Your task to perform on an android device: Go to location settings Image 0: 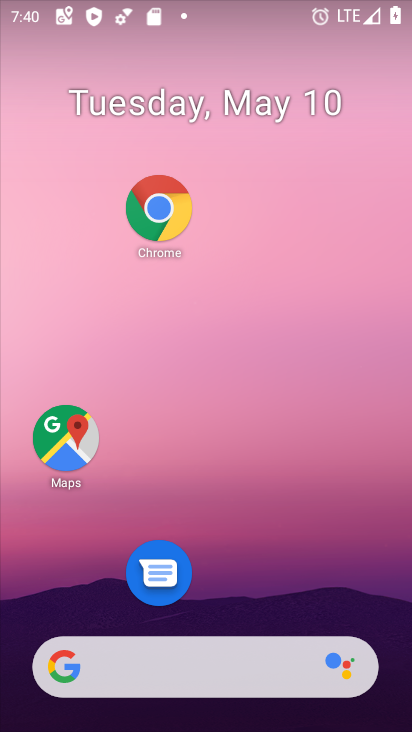
Step 0: drag from (298, 680) to (365, 149)
Your task to perform on an android device: Go to location settings Image 1: 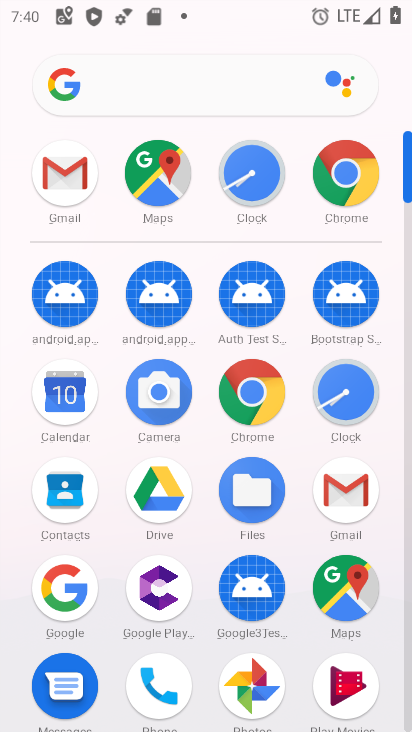
Step 1: drag from (192, 545) to (222, 470)
Your task to perform on an android device: Go to location settings Image 2: 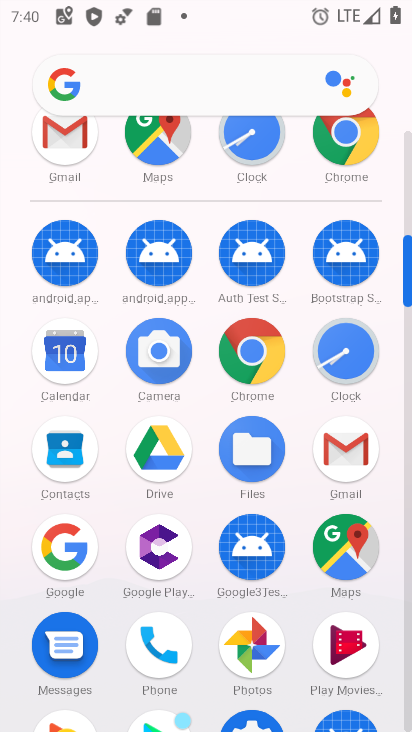
Step 2: drag from (216, 500) to (254, 409)
Your task to perform on an android device: Go to location settings Image 3: 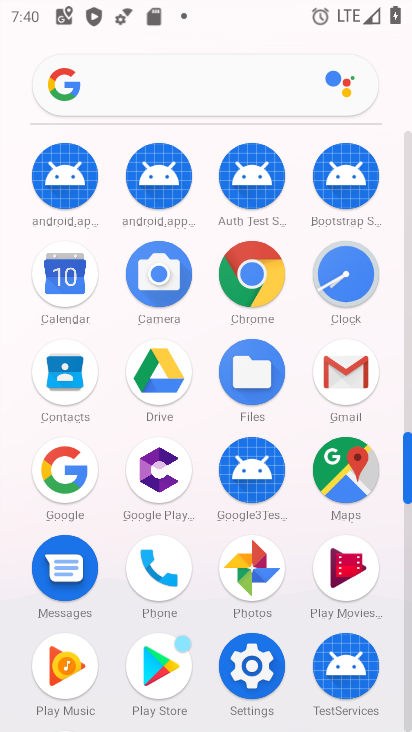
Step 3: click (264, 667)
Your task to perform on an android device: Go to location settings Image 4: 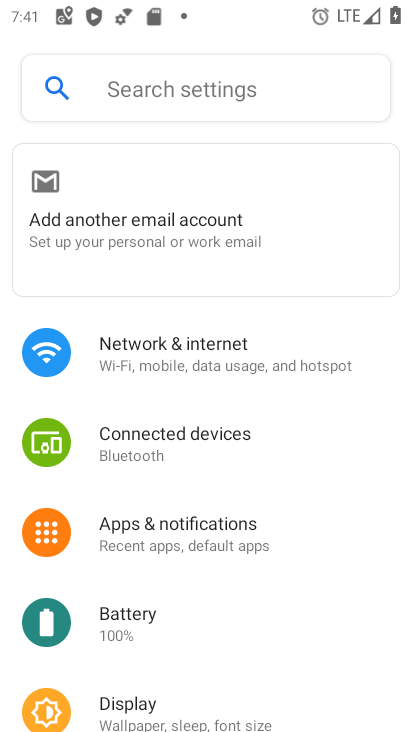
Step 4: click (200, 88)
Your task to perform on an android device: Go to location settings Image 5: 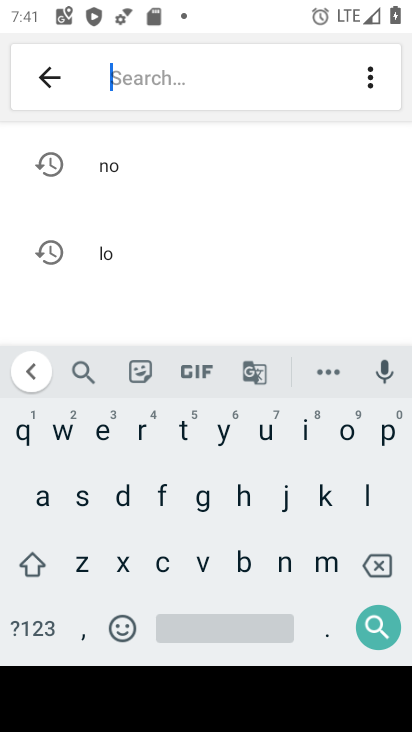
Step 5: click (365, 493)
Your task to perform on an android device: Go to location settings Image 6: 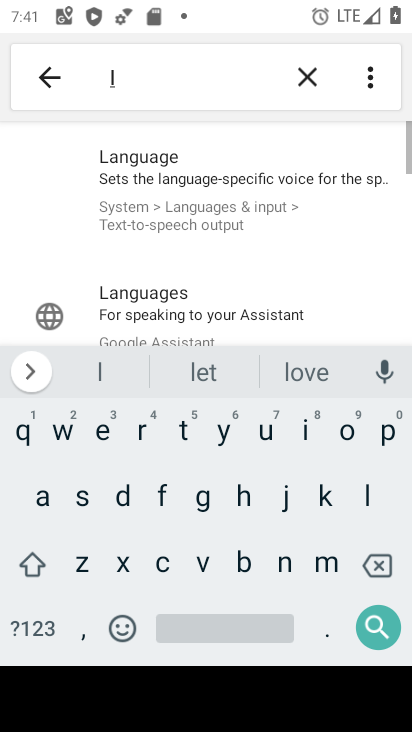
Step 6: click (339, 435)
Your task to perform on an android device: Go to location settings Image 7: 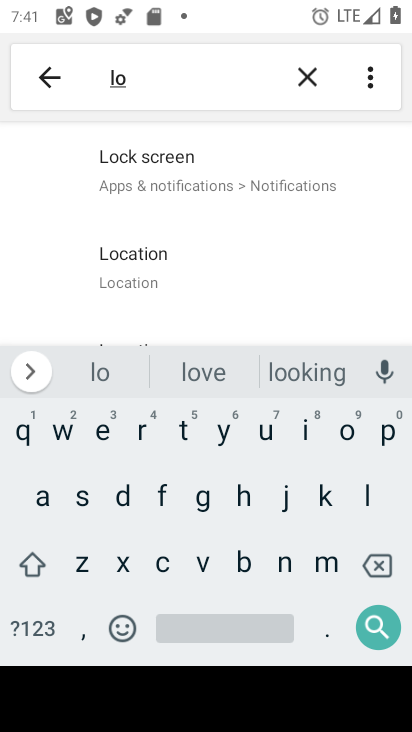
Step 7: click (157, 262)
Your task to perform on an android device: Go to location settings Image 8: 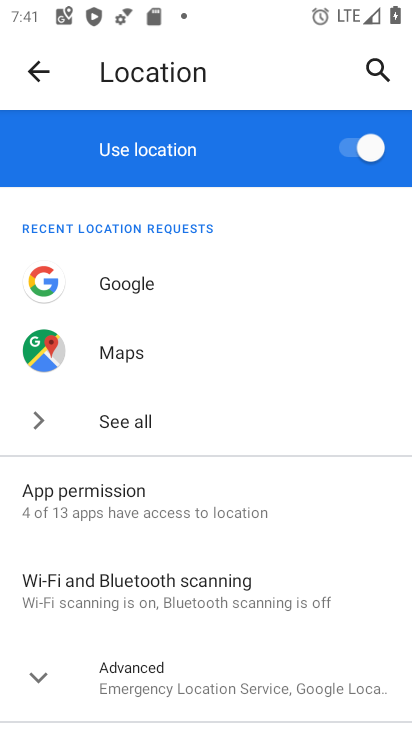
Step 8: task complete